Your task to perform on an android device: Go to location settings Image 0: 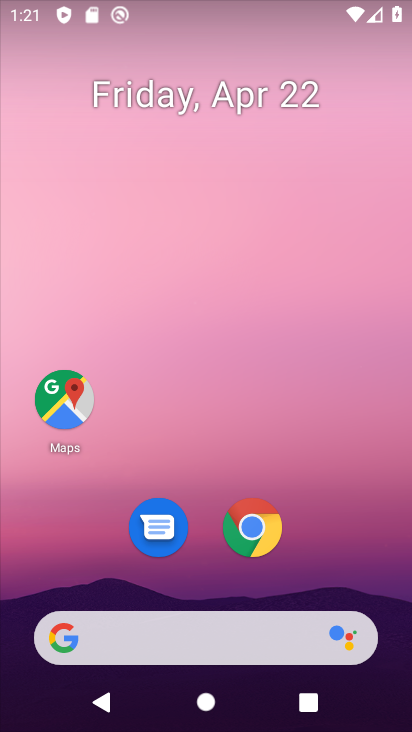
Step 0: drag from (368, 542) to (328, 80)
Your task to perform on an android device: Go to location settings Image 1: 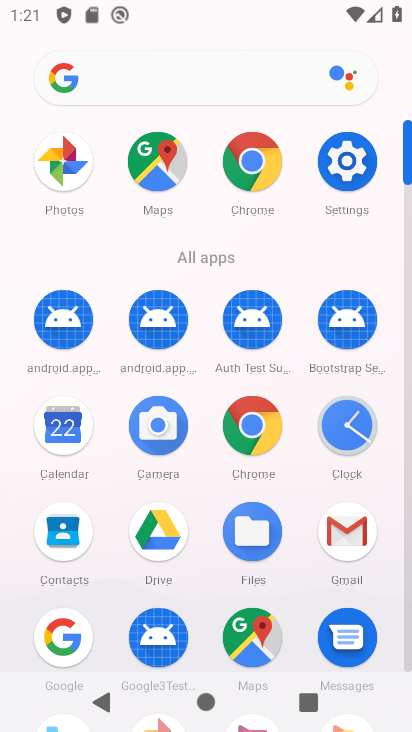
Step 1: click (355, 160)
Your task to perform on an android device: Go to location settings Image 2: 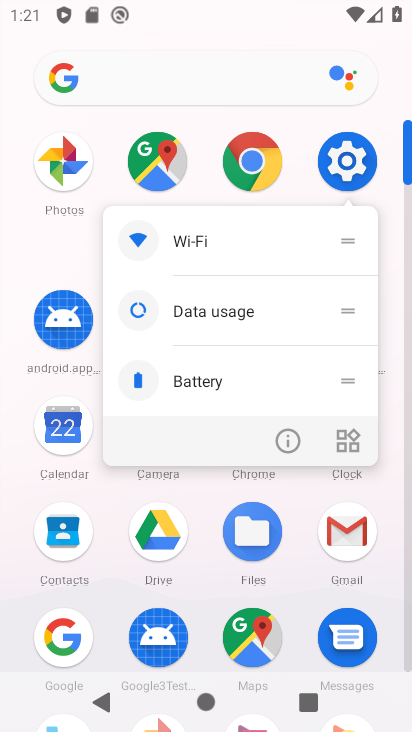
Step 2: click (355, 158)
Your task to perform on an android device: Go to location settings Image 3: 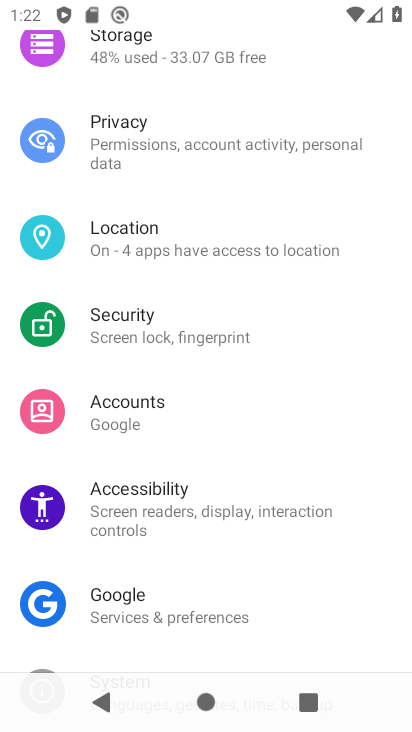
Step 3: click (161, 248)
Your task to perform on an android device: Go to location settings Image 4: 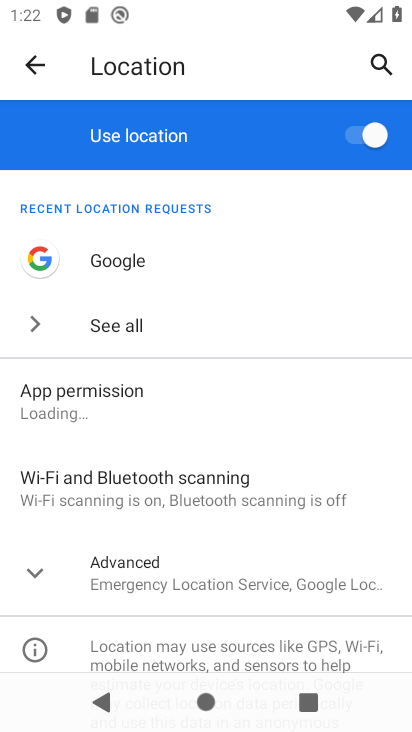
Step 4: task complete